Your task to perform on an android device: choose inbox layout in the gmail app Image 0: 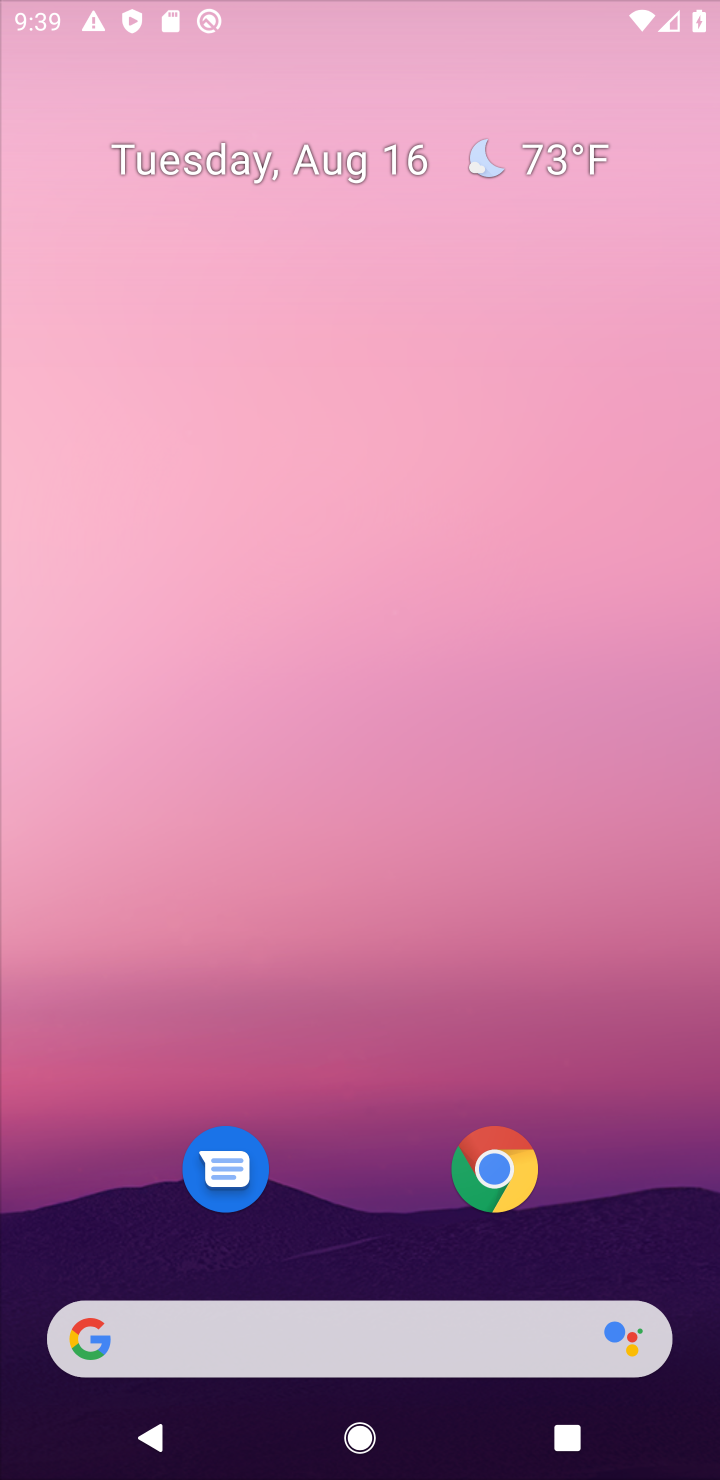
Step 0: press home button
Your task to perform on an android device: choose inbox layout in the gmail app Image 1: 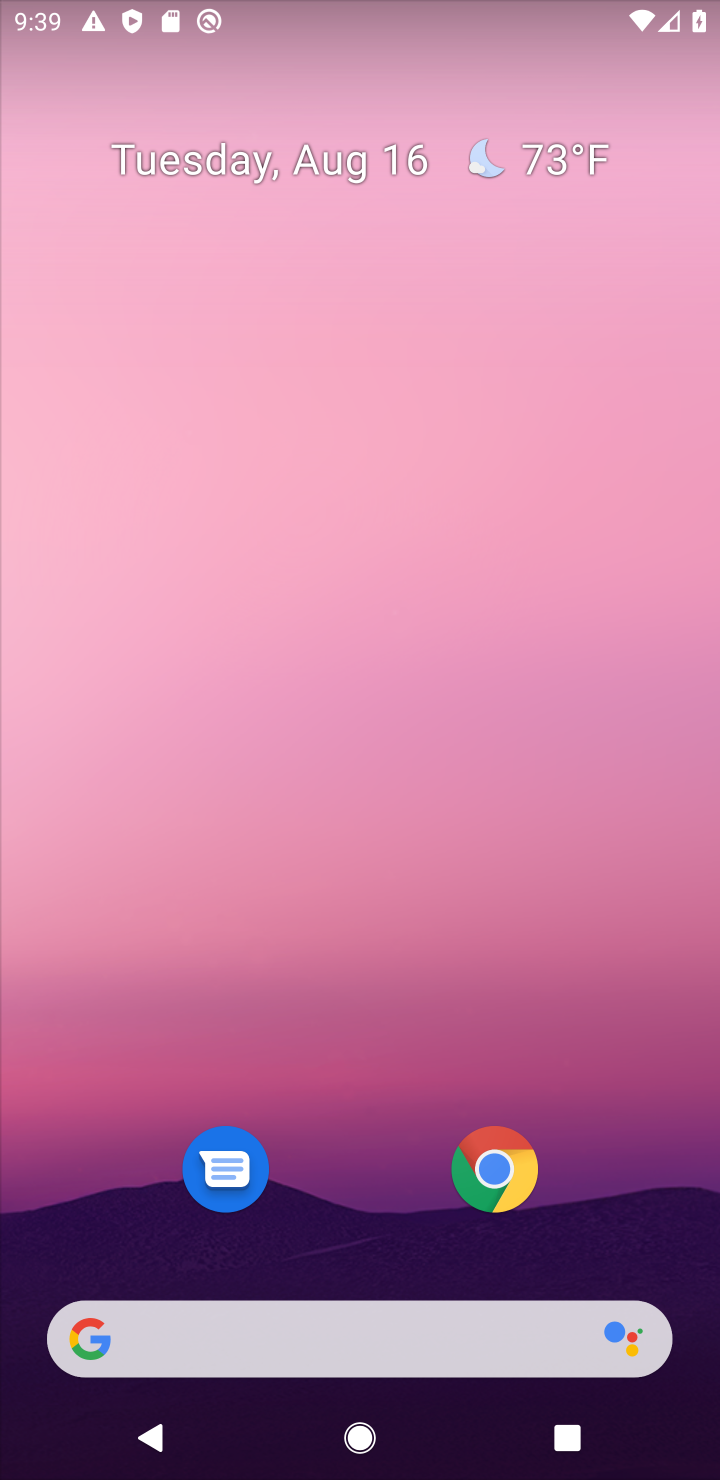
Step 1: drag from (417, 1242) to (368, 546)
Your task to perform on an android device: choose inbox layout in the gmail app Image 2: 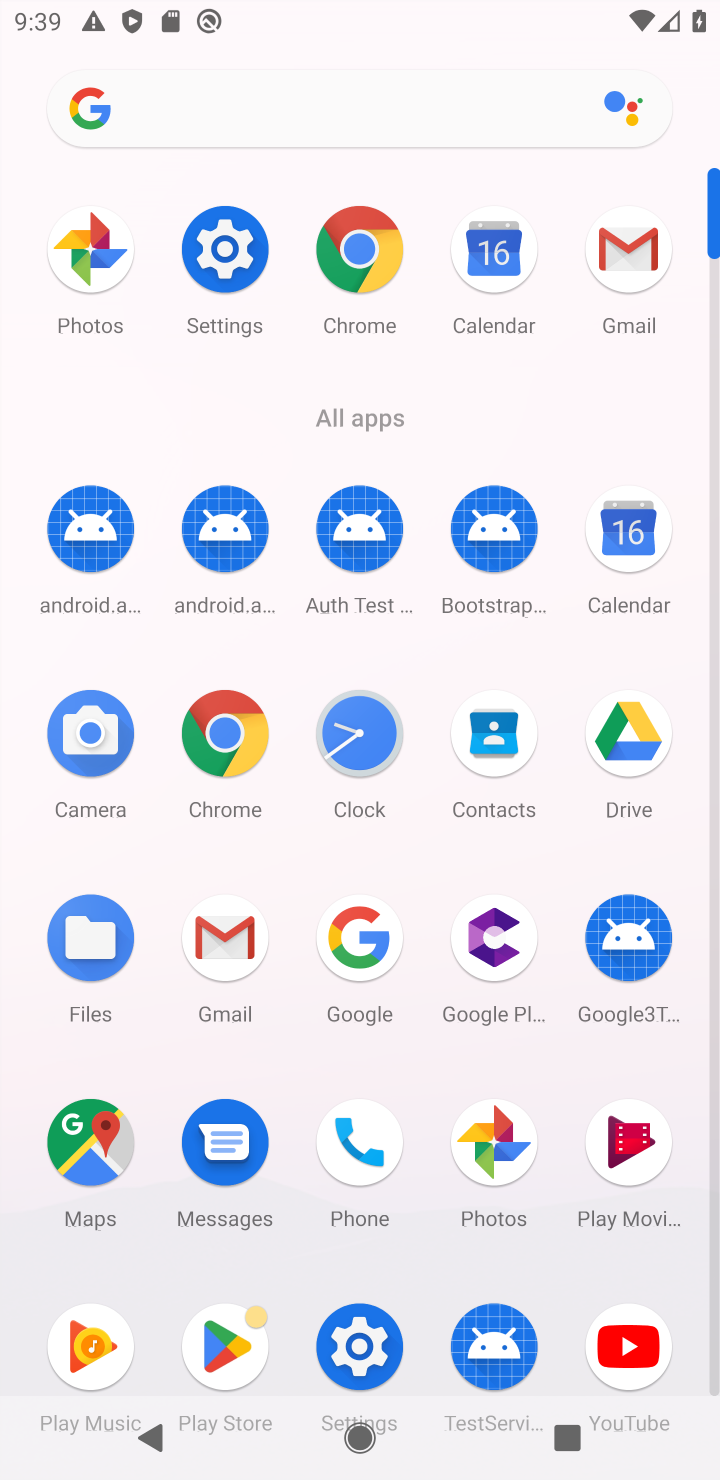
Step 2: click (629, 261)
Your task to perform on an android device: choose inbox layout in the gmail app Image 3: 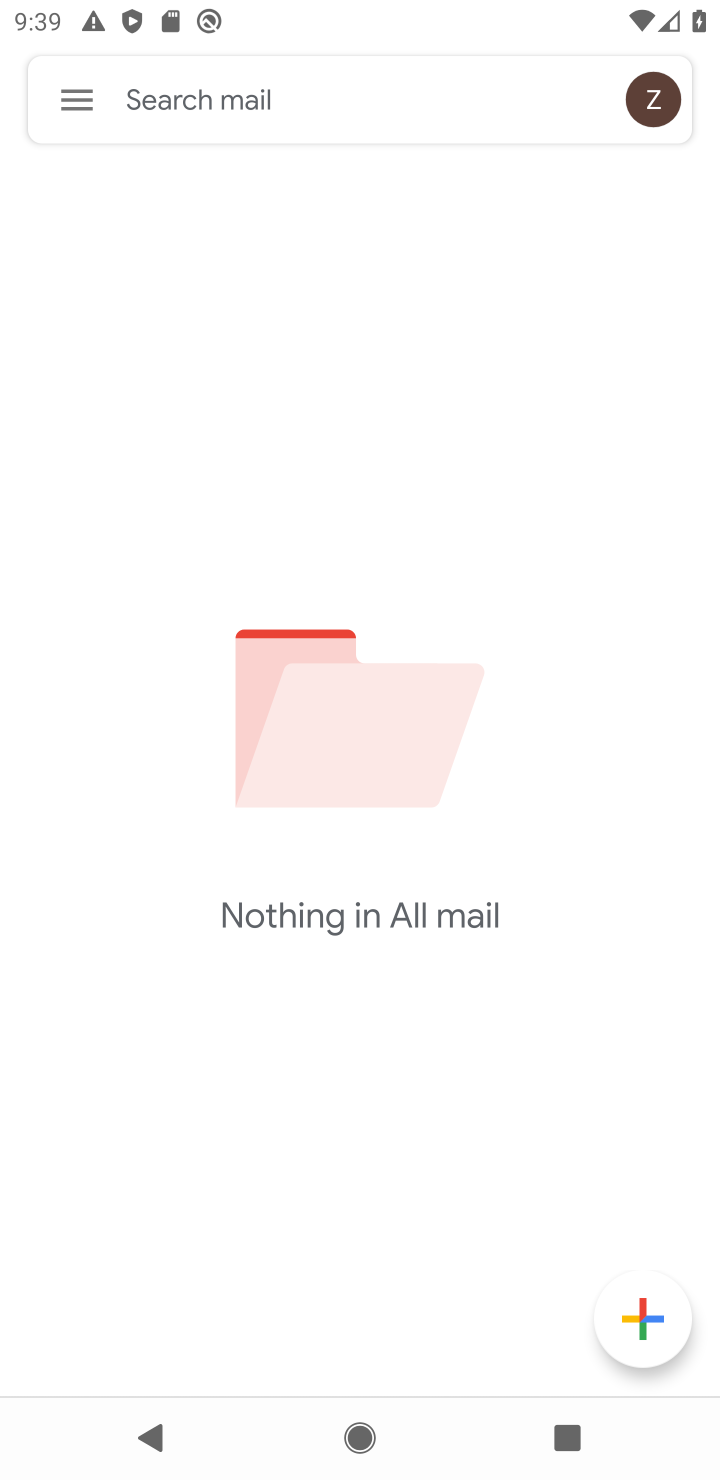
Step 3: click (64, 87)
Your task to perform on an android device: choose inbox layout in the gmail app Image 4: 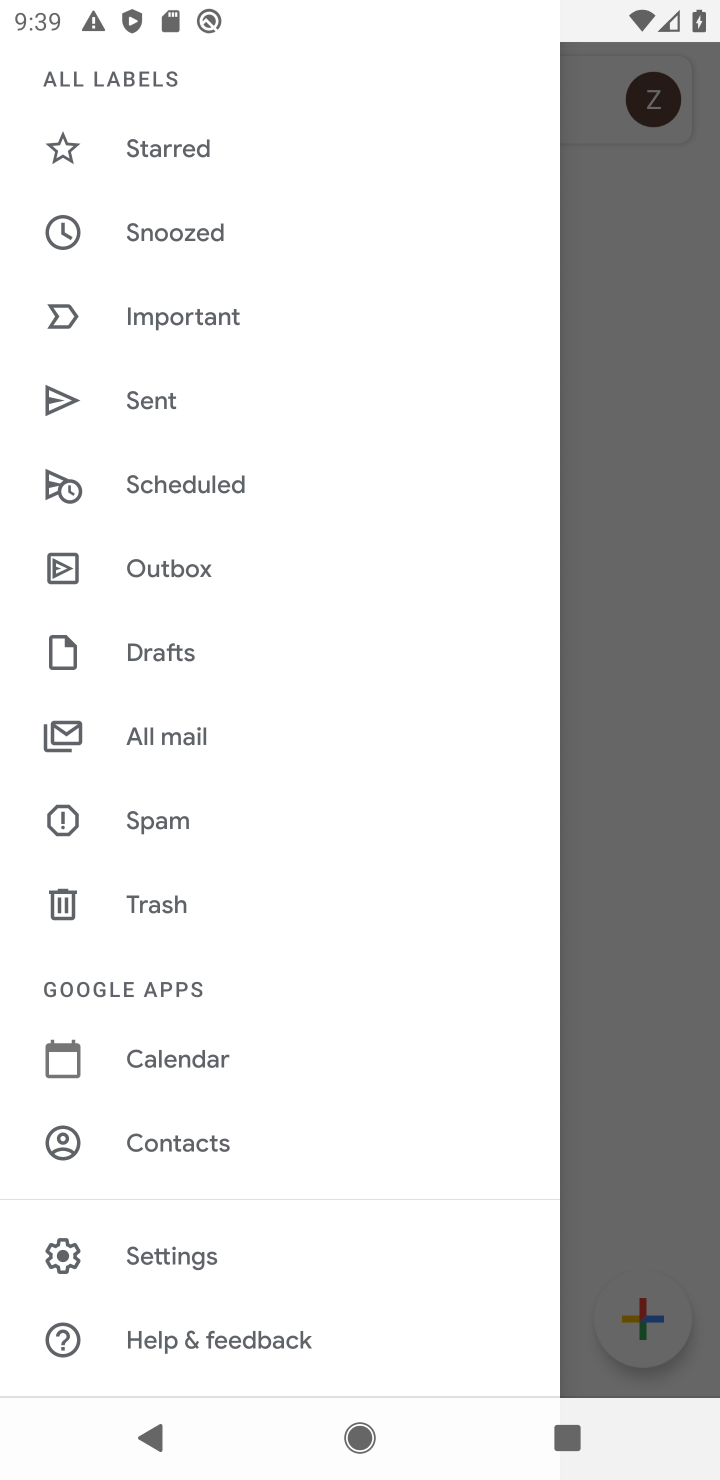
Step 4: click (165, 1248)
Your task to perform on an android device: choose inbox layout in the gmail app Image 5: 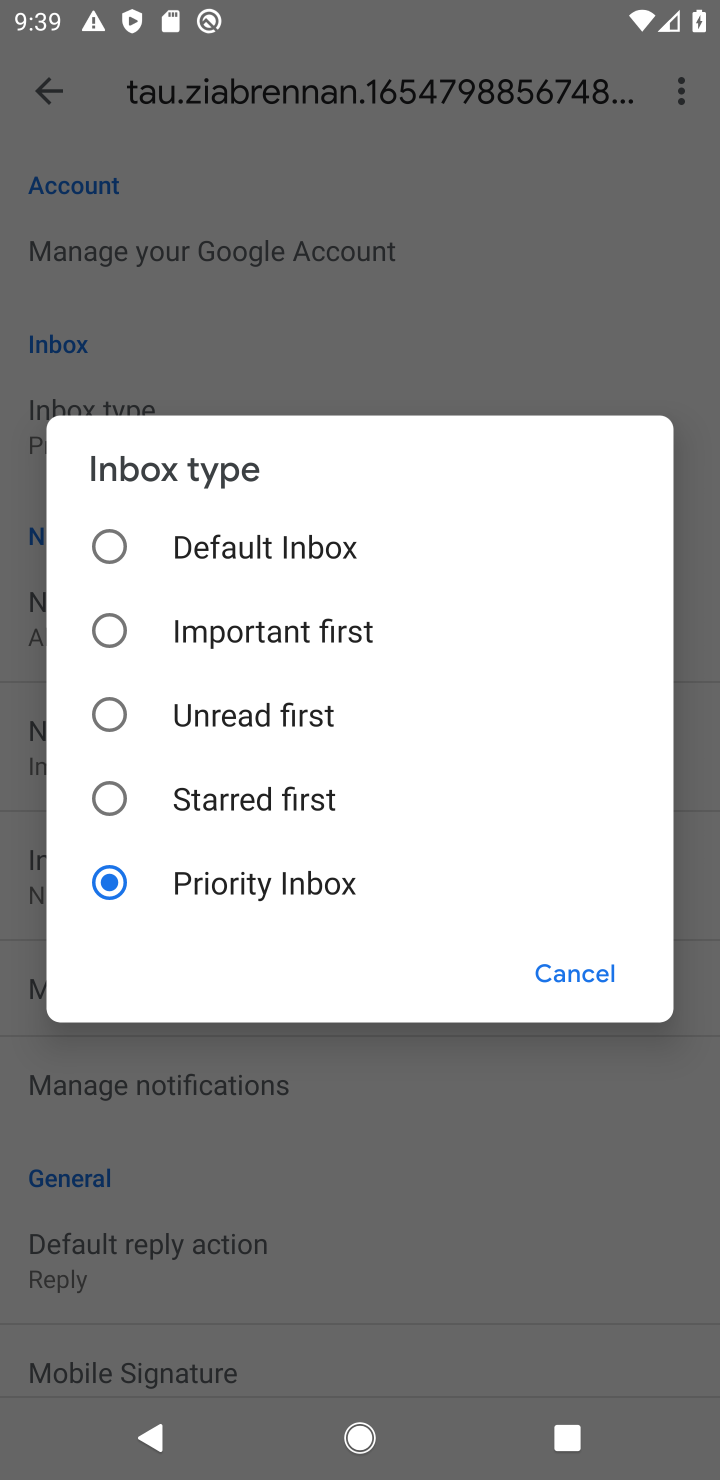
Step 5: click (95, 553)
Your task to perform on an android device: choose inbox layout in the gmail app Image 6: 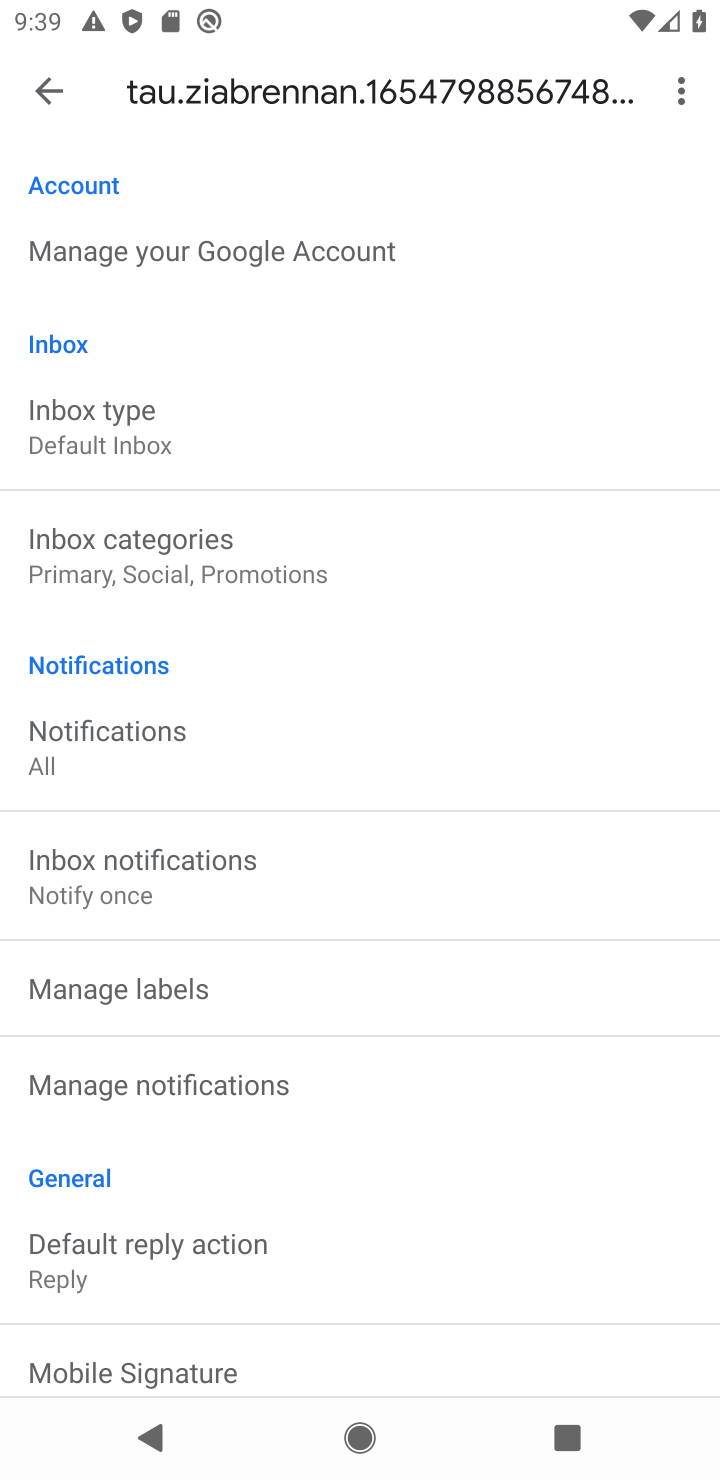
Step 6: task complete